Your task to perform on an android device: Open Google Image 0: 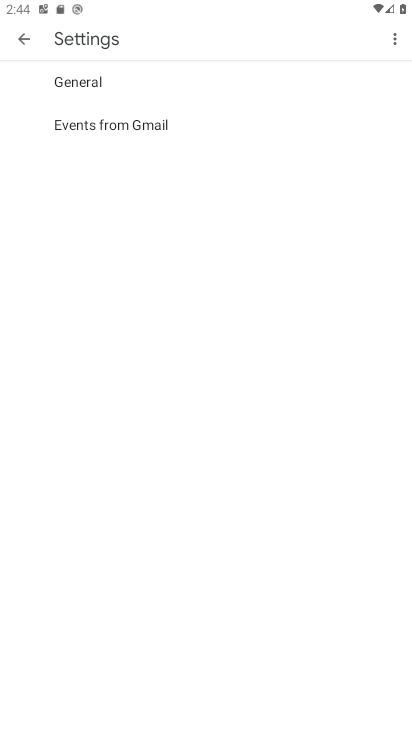
Step 0: press home button
Your task to perform on an android device: Open Google Image 1: 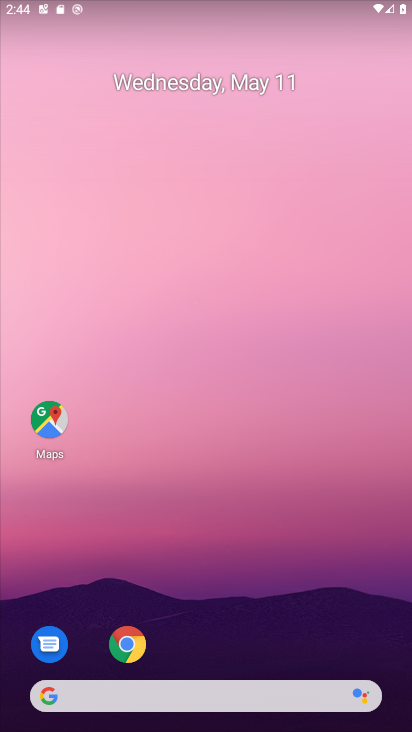
Step 1: drag from (210, 677) to (150, 13)
Your task to perform on an android device: Open Google Image 2: 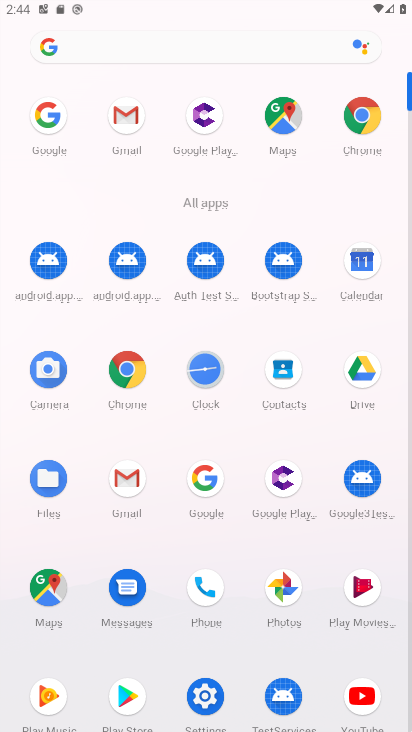
Step 2: click (35, 114)
Your task to perform on an android device: Open Google Image 3: 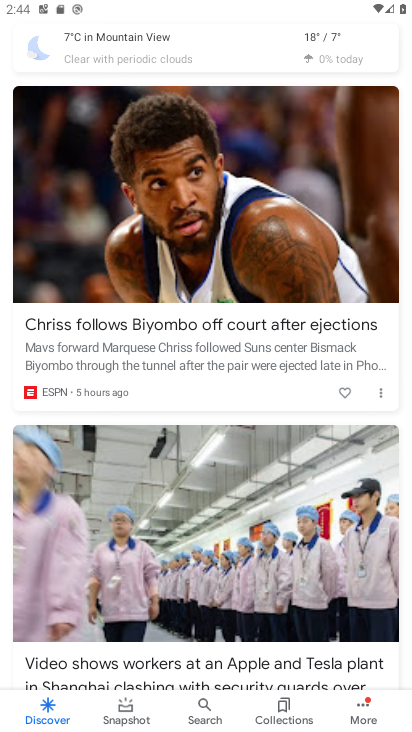
Step 3: task complete